Your task to perform on an android device: What's the weather? Image 0: 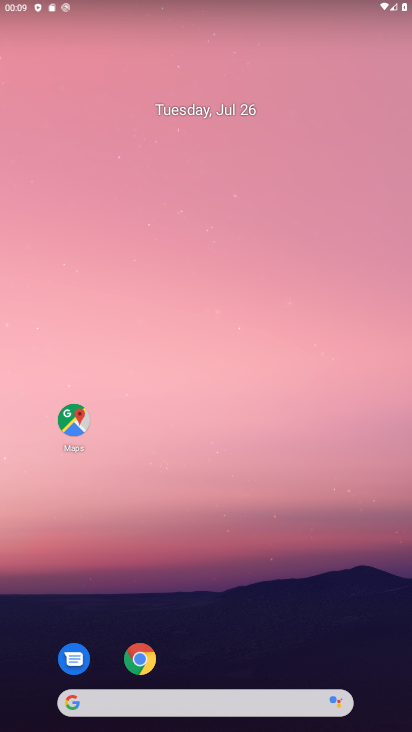
Step 0: drag from (240, 626) to (199, 11)
Your task to perform on an android device: What's the weather? Image 1: 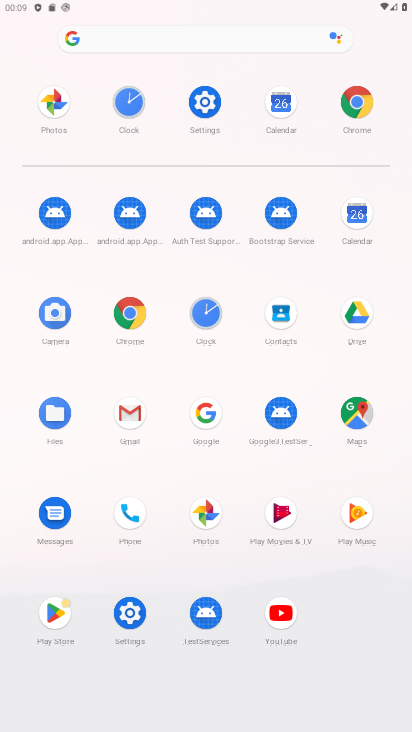
Step 1: click (359, 93)
Your task to perform on an android device: What's the weather? Image 2: 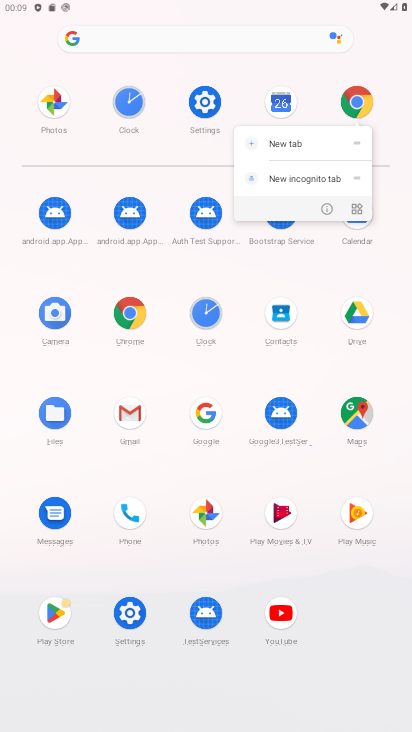
Step 2: click (360, 102)
Your task to perform on an android device: What's the weather? Image 3: 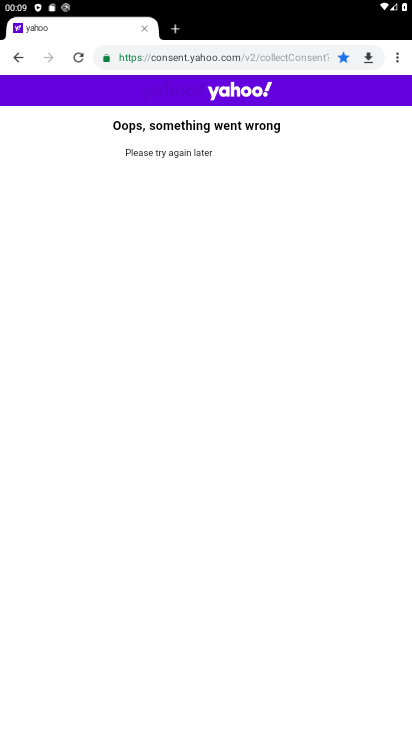
Step 3: click (197, 48)
Your task to perform on an android device: What's the weather? Image 4: 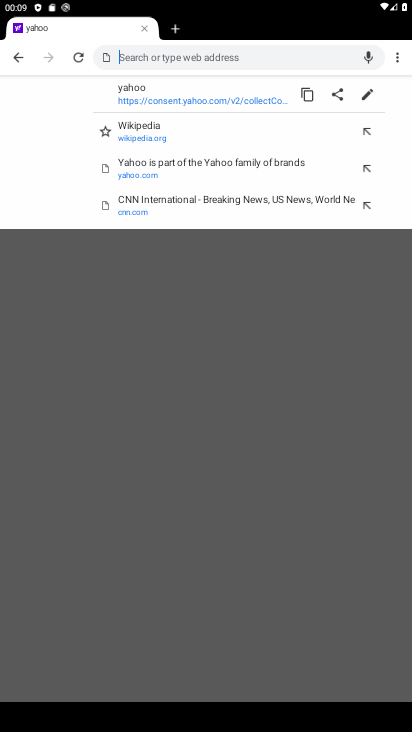
Step 4: type "weather"
Your task to perform on an android device: What's the weather? Image 5: 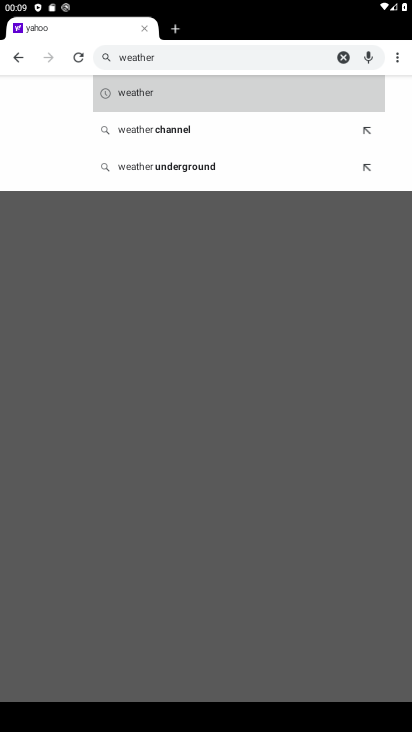
Step 5: click (142, 83)
Your task to perform on an android device: What's the weather? Image 6: 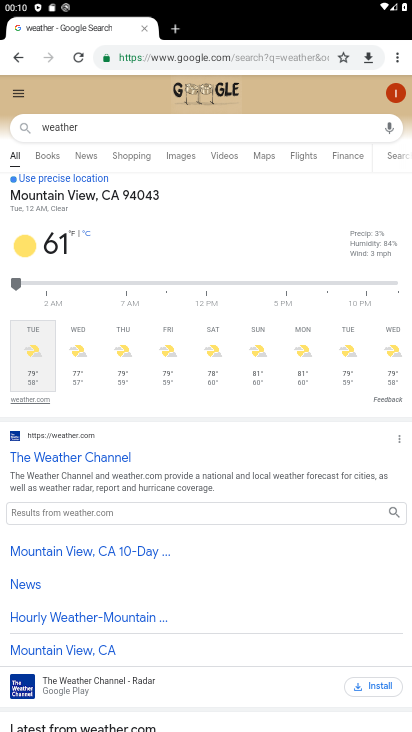
Step 6: task complete